Your task to perform on an android device: open app "Google Play Music" Image 0: 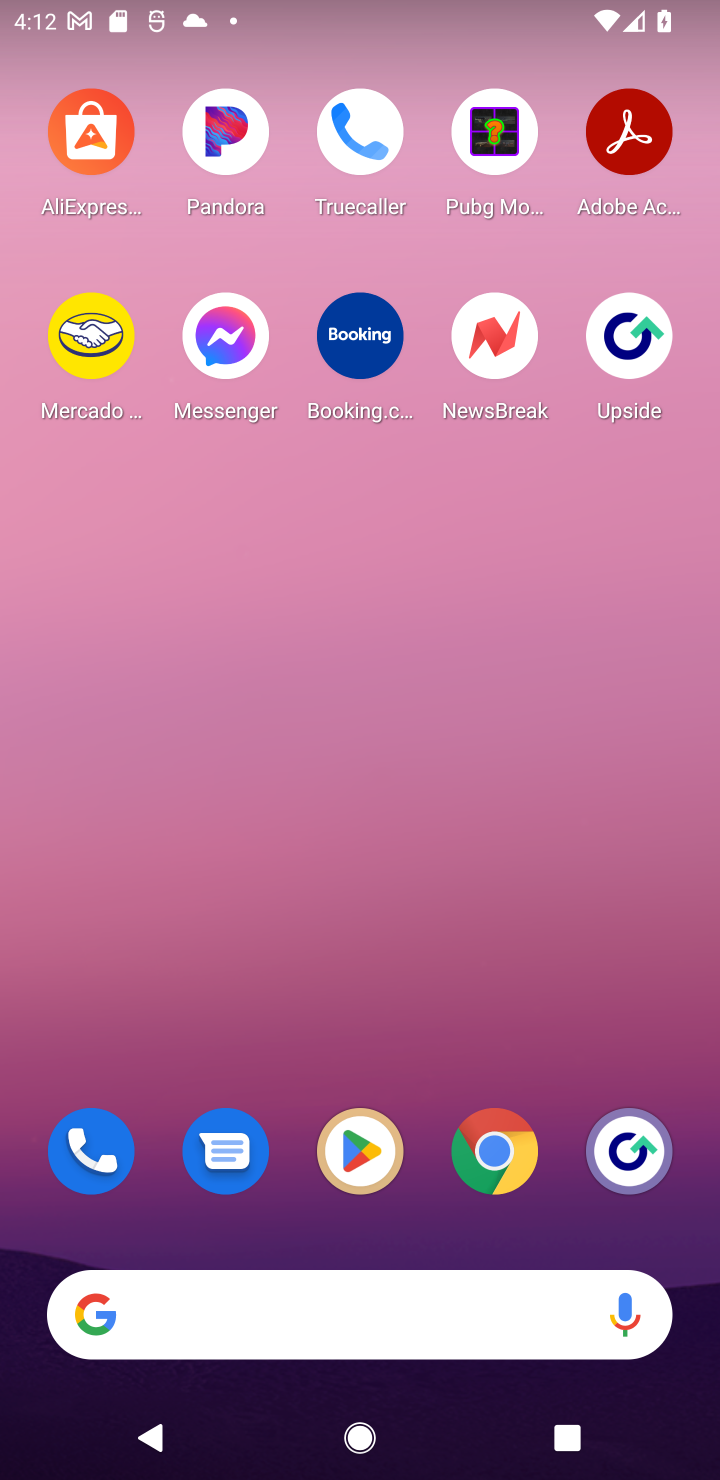
Step 0: press home button
Your task to perform on an android device: open app "Google Play Music" Image 1: 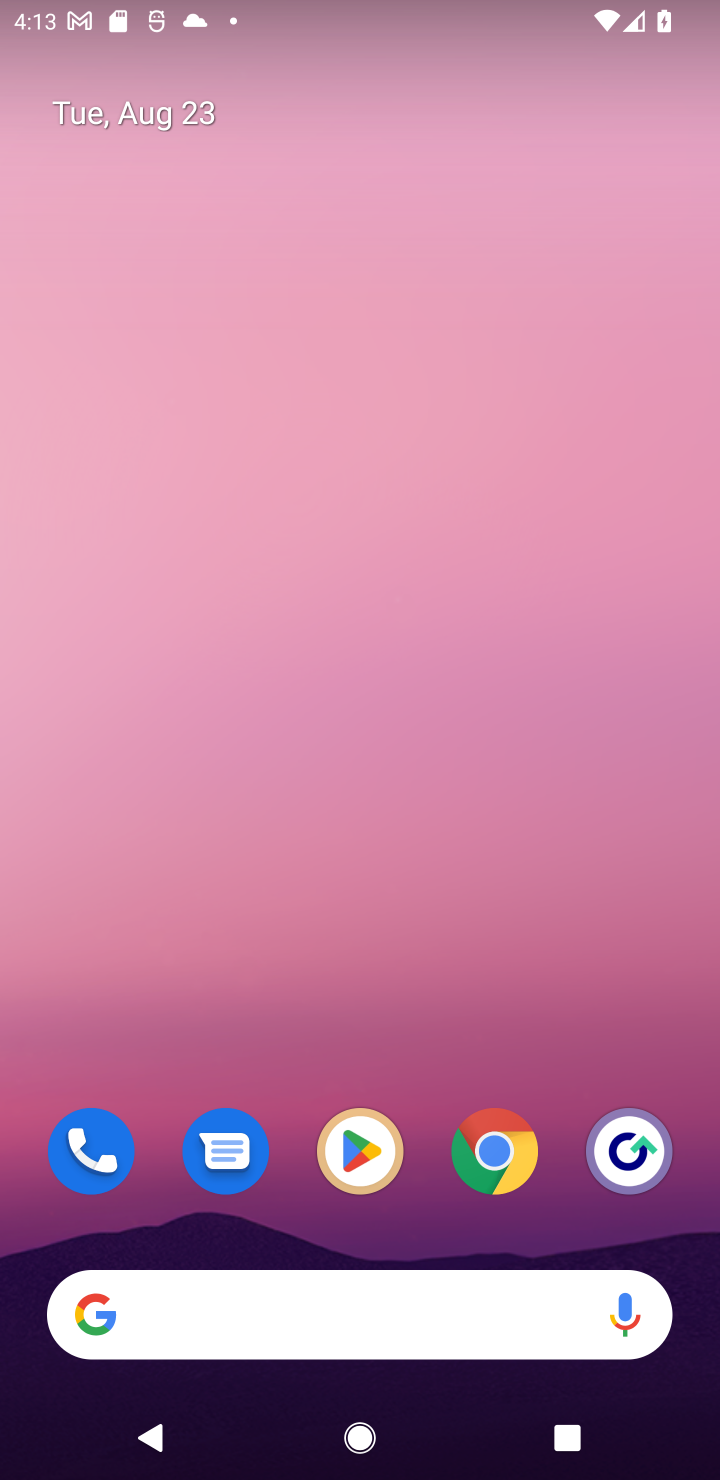
Step 1: click (361, 1155)
Your task to perform on an android device: open app "Google Play Music" Image 2: 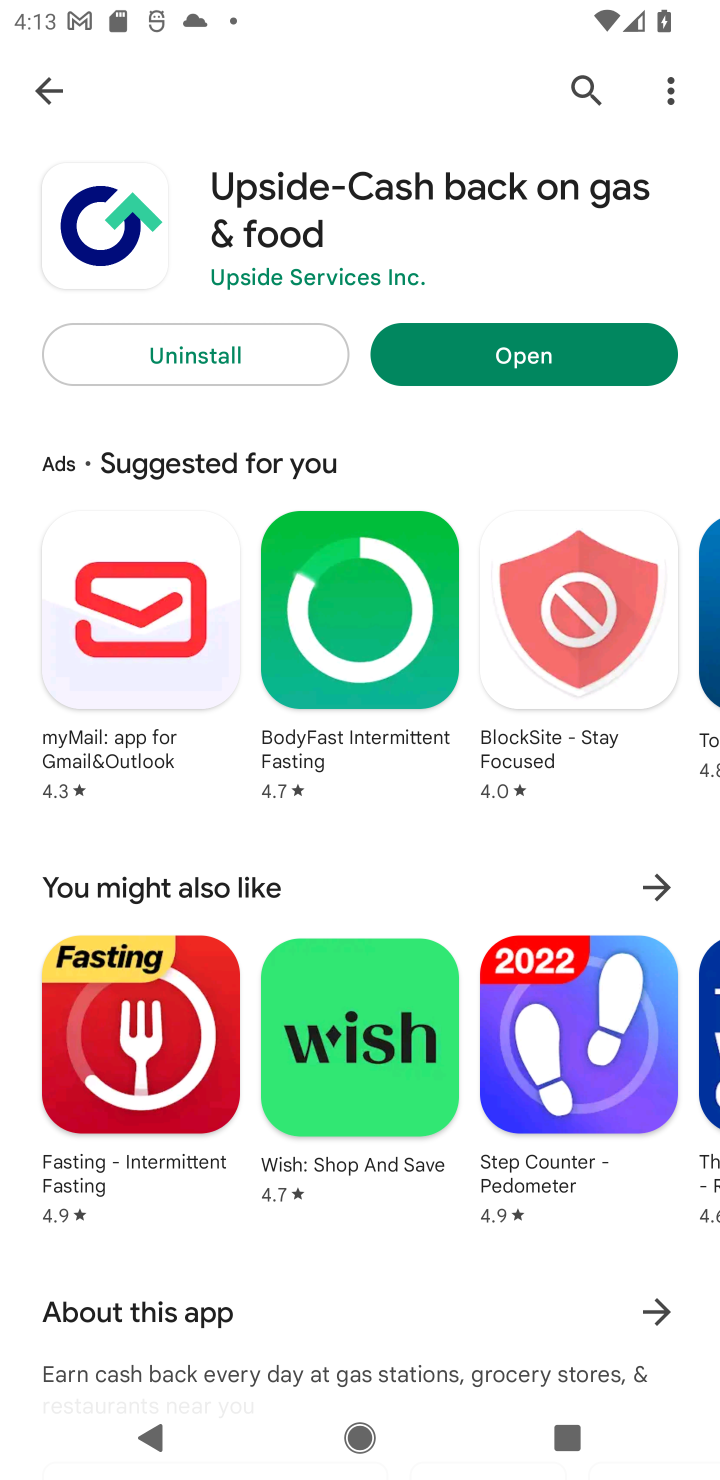
Step 2: click (587, 76)
Your task to perform on an android device: open app "Google Play Music" Image 3: 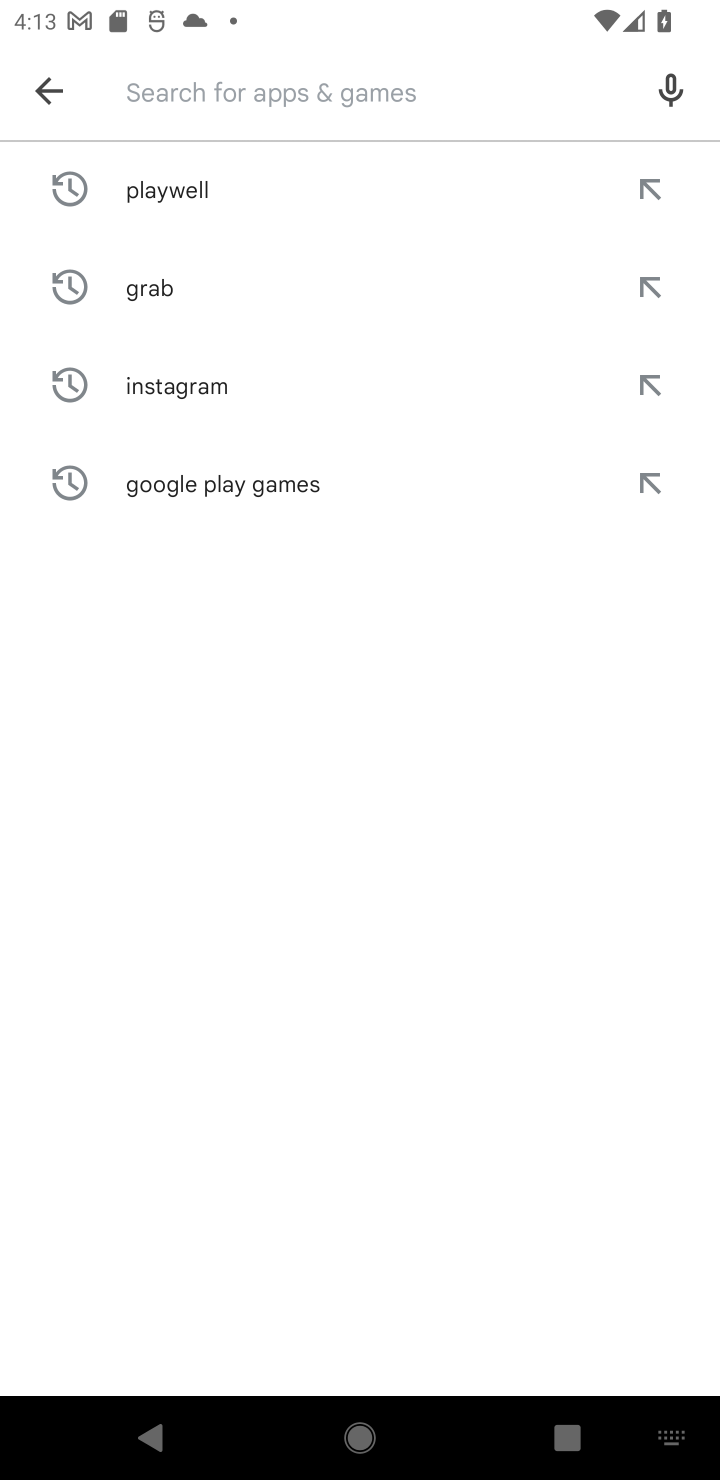
Step 3: type "Google Play Music"
Your task to perform on an android device: open app "Google Play Music" Image 4: 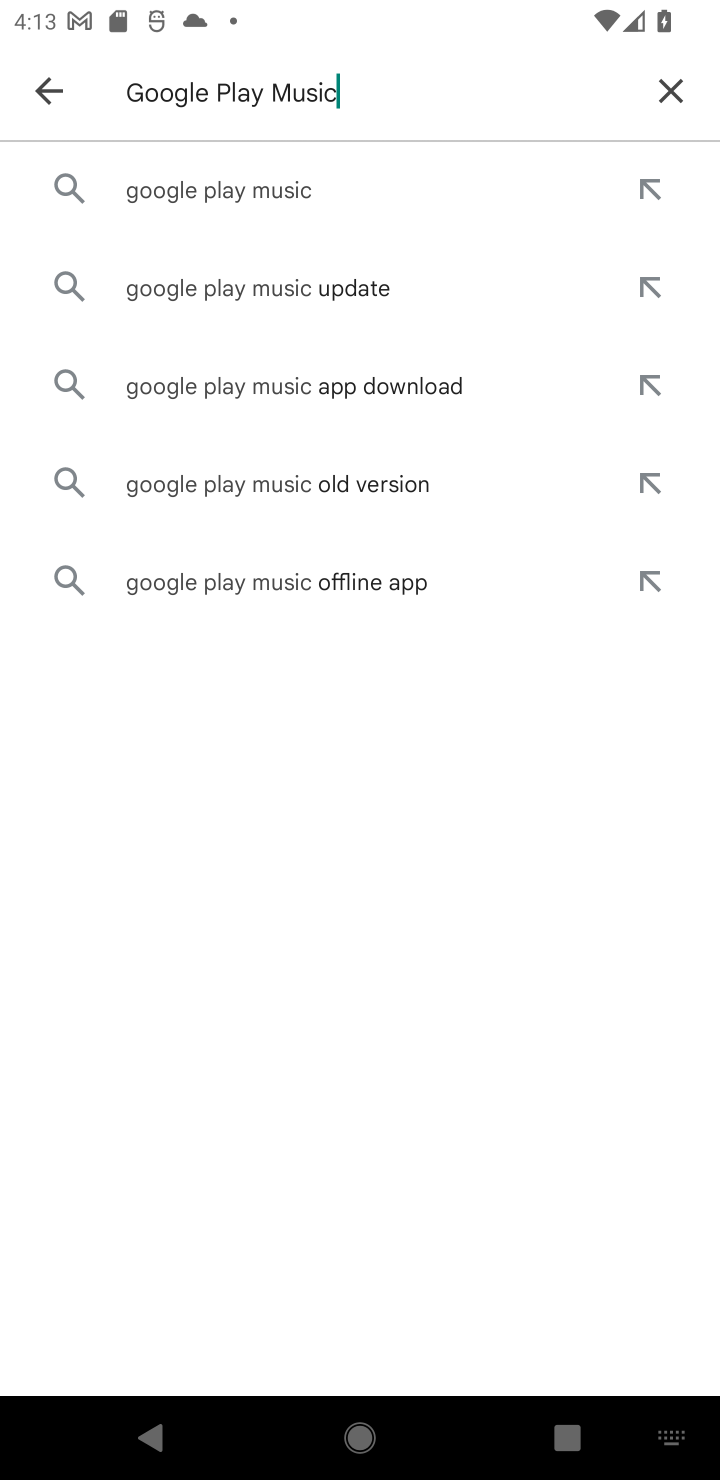
Step 4: click (282, 186)
Your task to perform on an android device: open app "Google Play Music" Image 5: 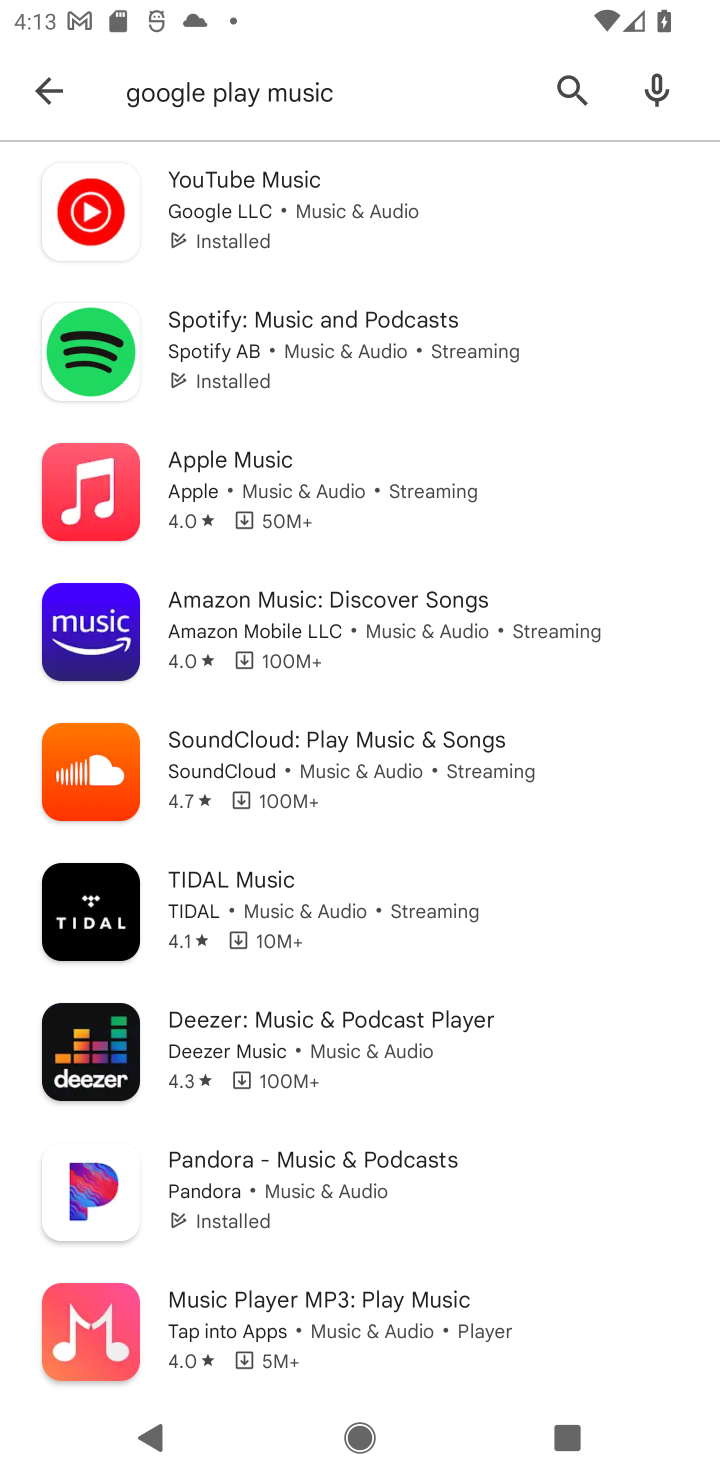
Step 5: task complete